Your task to perform on an android device: Go to internet settings Image 0: 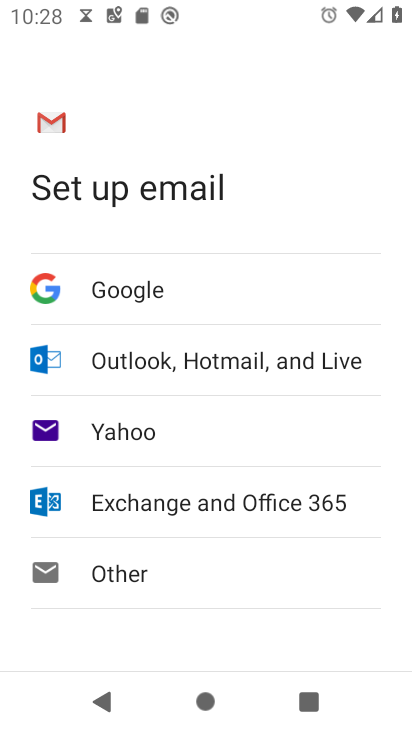
Step 0: press home button
Your task to perform on an android device: Go to internet settings Image 1: 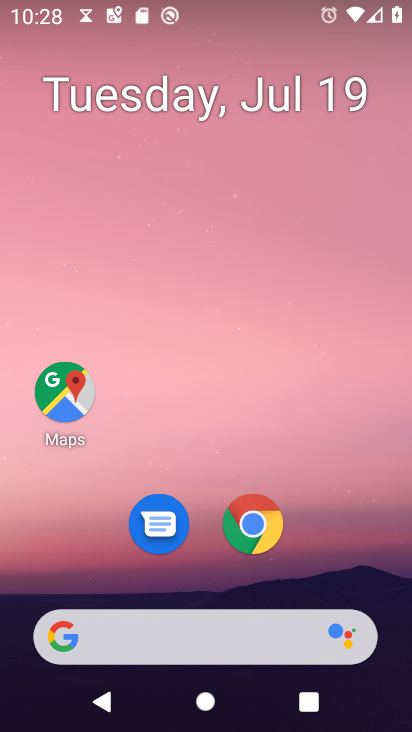
Step 1: drag from (220, 641) to (318, 158)
Your task to perform on an android device: Go to internet settings Image 2: 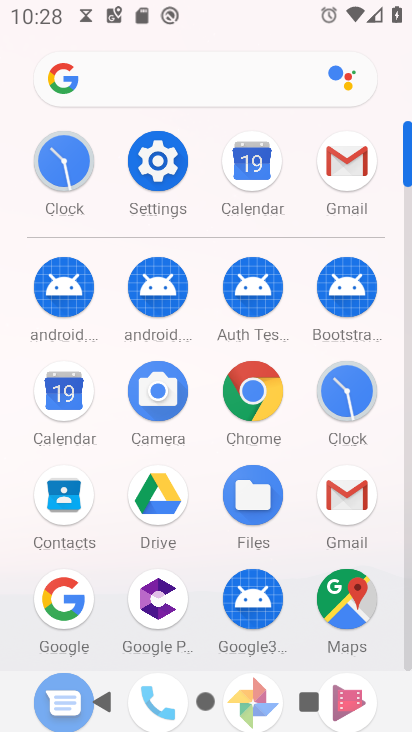
Step 2: click (164, 163)
Your task to perform on an android device: Go to internet settings Image 3: 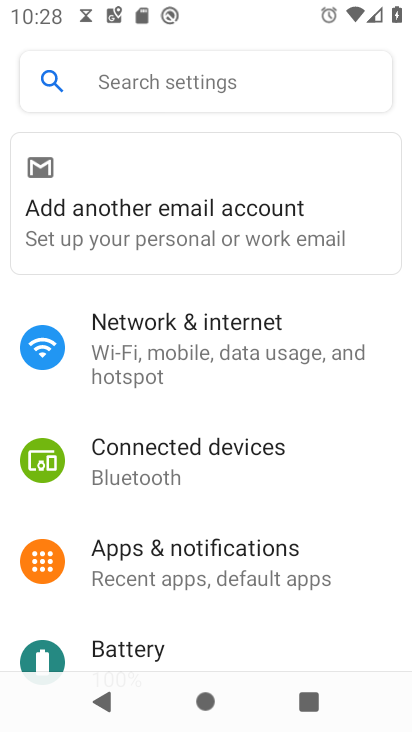
Step 3: click (192, 329)
Your task to perform on an android device: Go to internet settings Image 4: 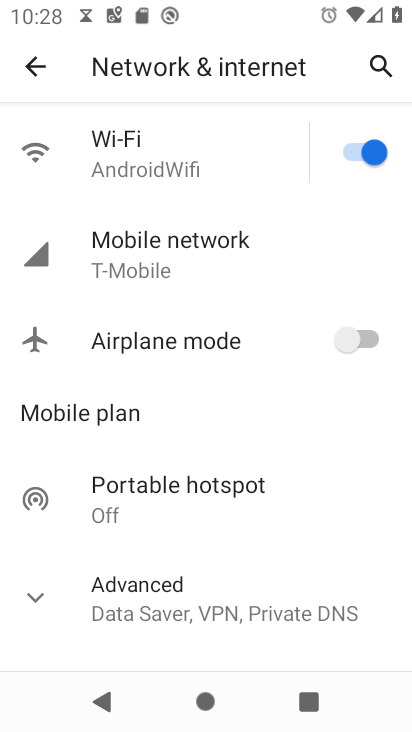
Step 4: task complete